Your task to perform on an android device: Open Youtube and go to "Your channel" Image 0: 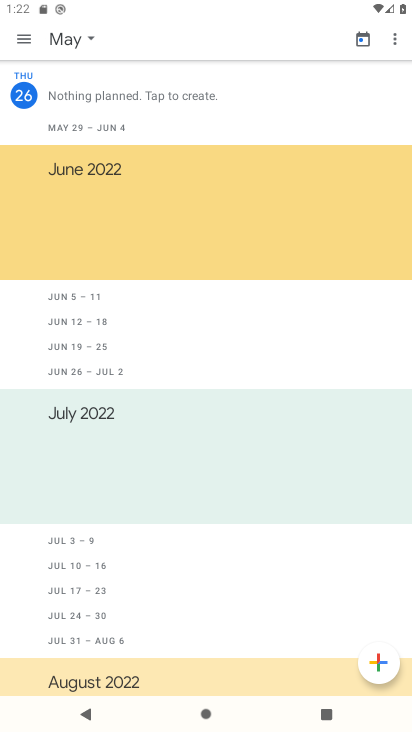
Step 0: press home button
Your task to perform on an android device: Open Youtube and go to "Your channel" Image 1: 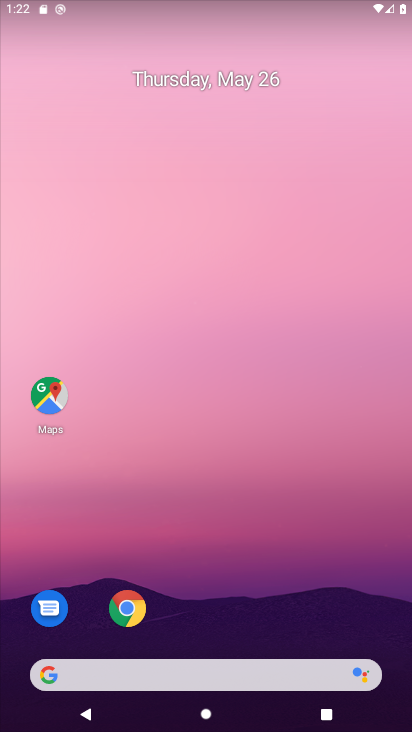
Step 1: drag from (207, 644) to (341, 144)
Your task to perform on an android device: Open Youtube and go to "Your channel" Image 2: 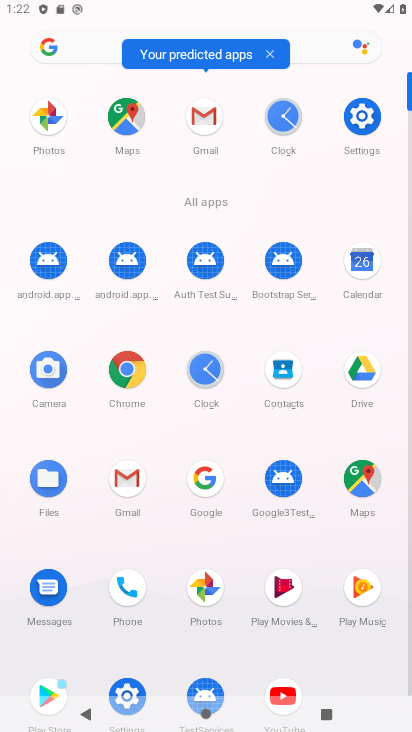
Step 2: click (276, 681)
Your task to perform on an android device: Open Youtube and go to "Your channel" Image 3: 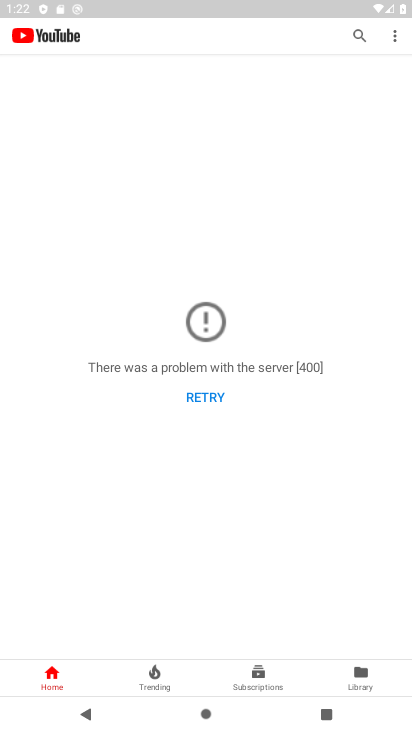
Step 3: click (355, 673)
Your task to perform on an android device: Open Youtube and go to "Your channel" Image 4: 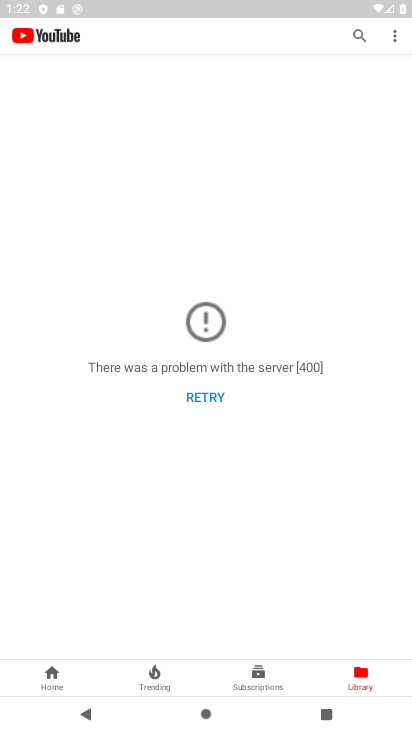
Step 4: task complete